Your task to perform on an android device: Open Wikipedia Image 0: 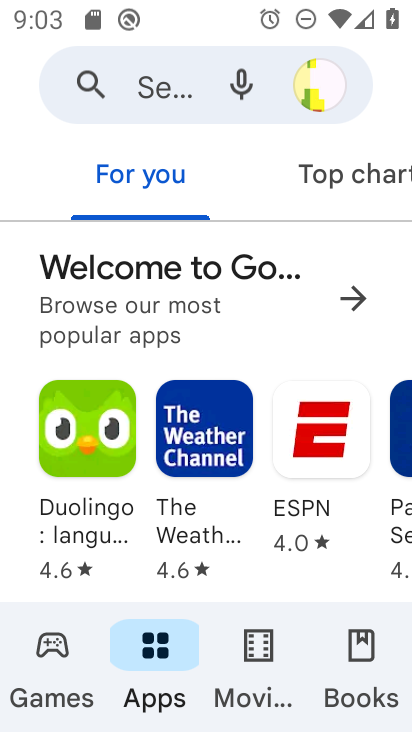
Step 0: press home button
Your task to perform on an android device: Open Wikipedia Image 1: 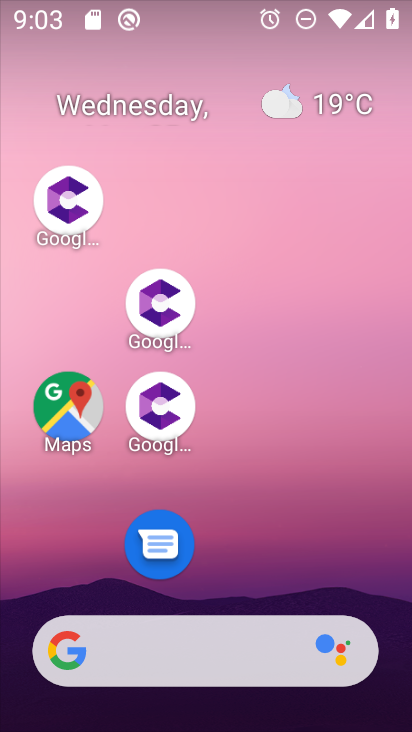
Step 1: drag from (276, 509) to (205, 74)
Your task to perform on an android device: Open Wikipedia Image 2: 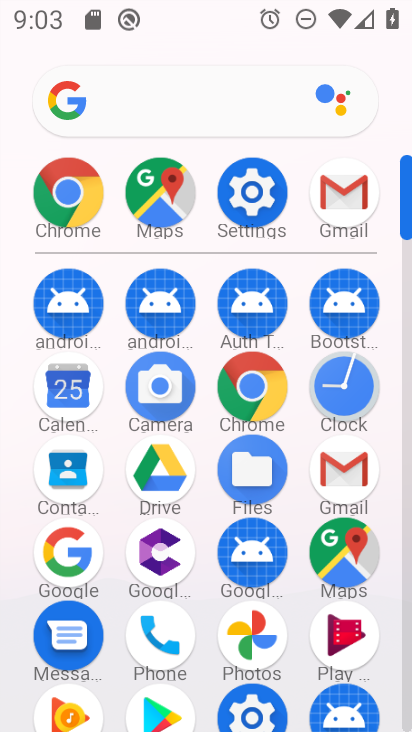
Step 2: click (243, 376)
Your task to perform on an android device: Open Wikipedia Image 3: 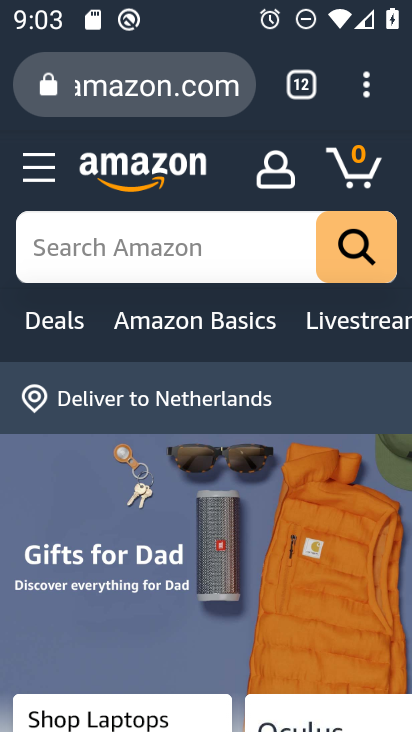
Step 3: click (363, 81)
Your task to perform on an android device: Open Wikipedia Image 4: 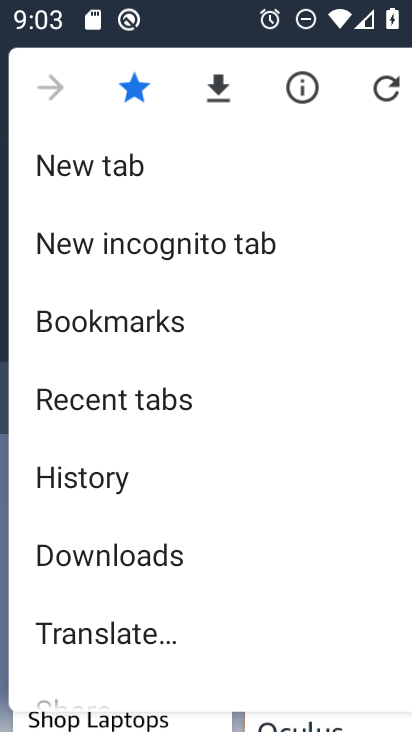
Step 4: click (95, 160)
Your task to perform on an android device: Open Wikipedia Image 5: 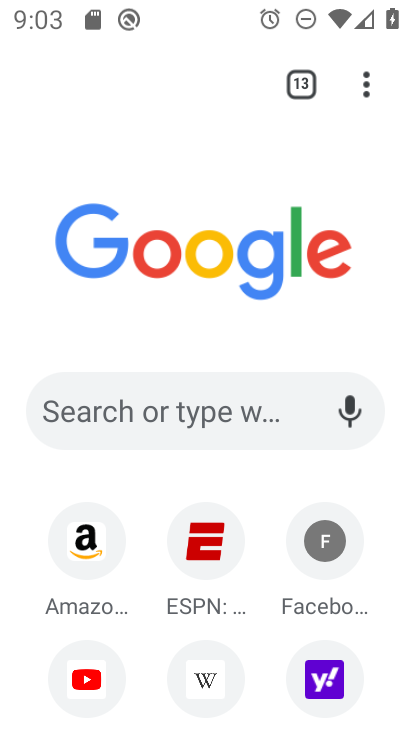
Step 5: click (203, 669)
Your task to perform on an android device: Open Wikipedia Image 6: 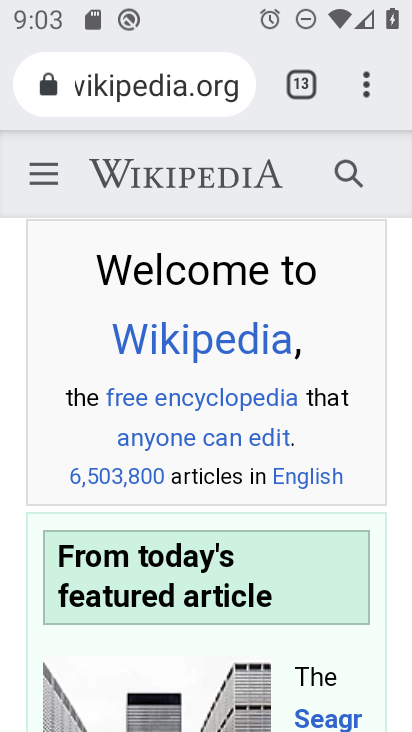
Step 6: task complete